Your task to perform on an android device: Is it going to rain tomorrow? Image 0: 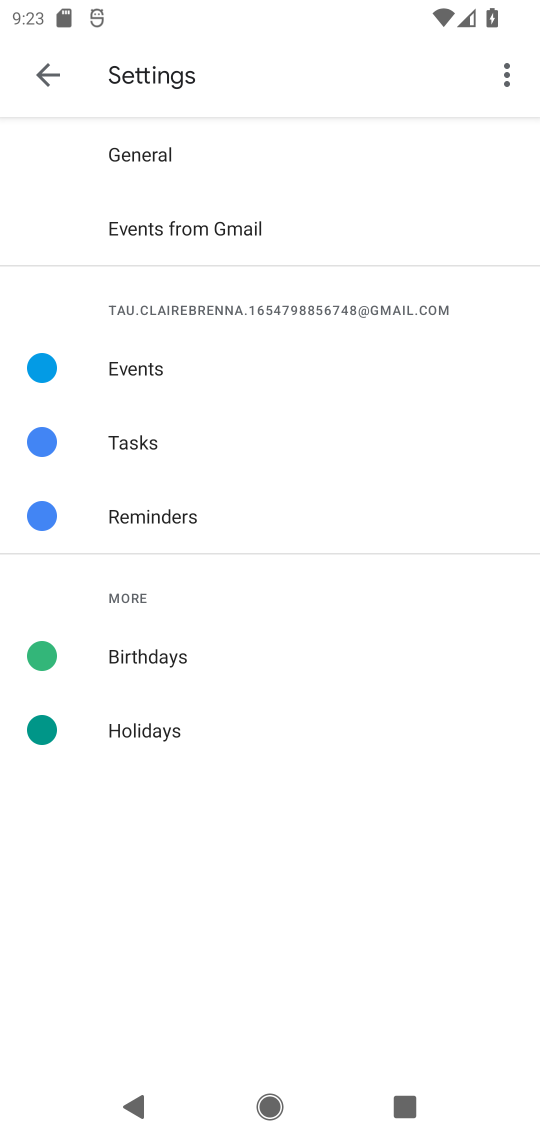
Step 0: press home button
Your task to perform on an android device: Is it going to rain tomorrow? Image 1: 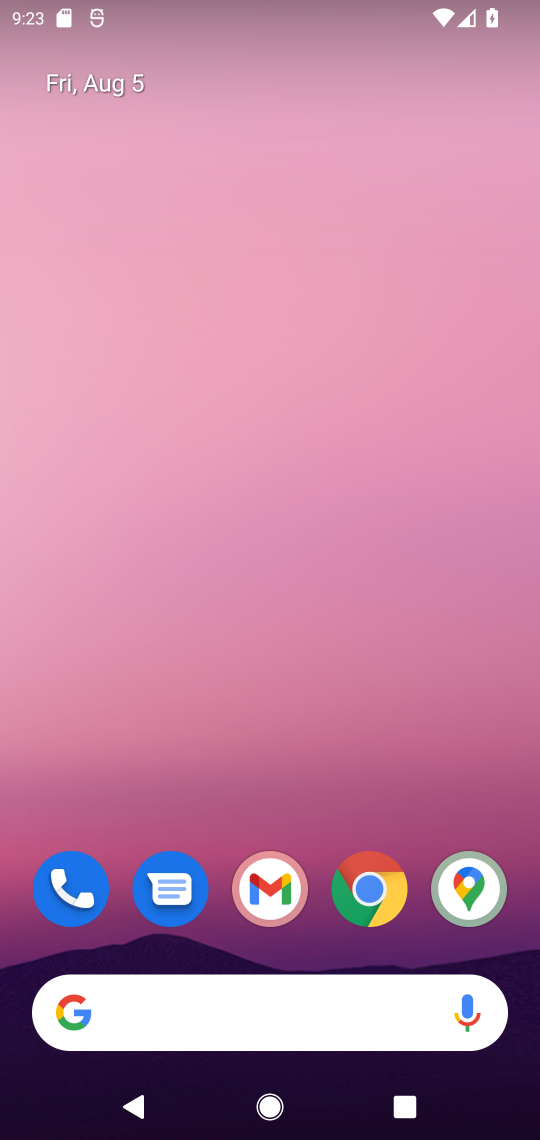
Step 1: click (359, 904)
Your task to perform on an android device: Is it going to rain tomorrow? Image 2: 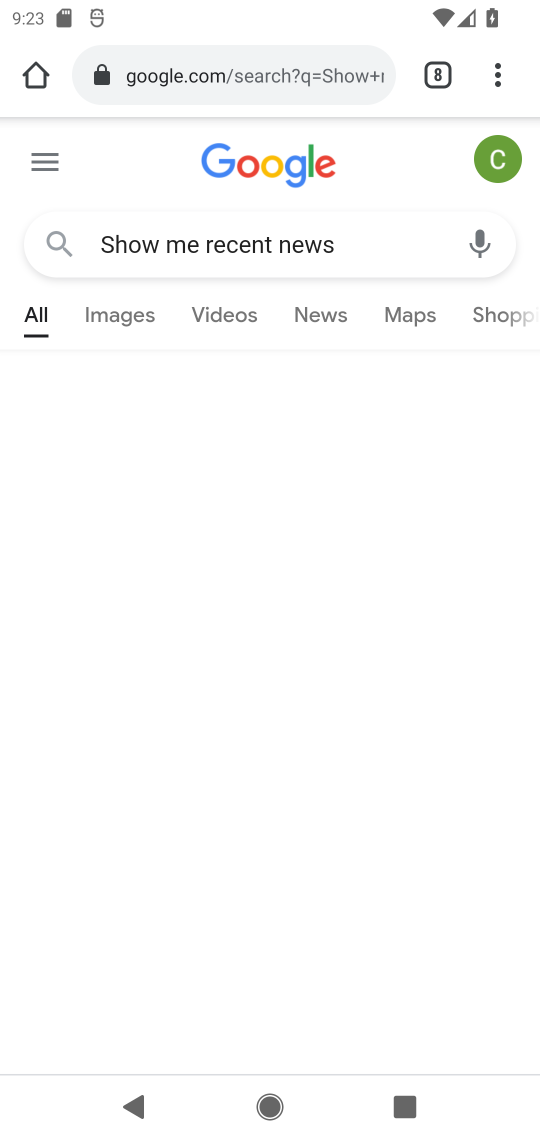
Step 2: click (504, 95)
Your task to perform on an android device: Is it going to rain tomorrow? Image 3: 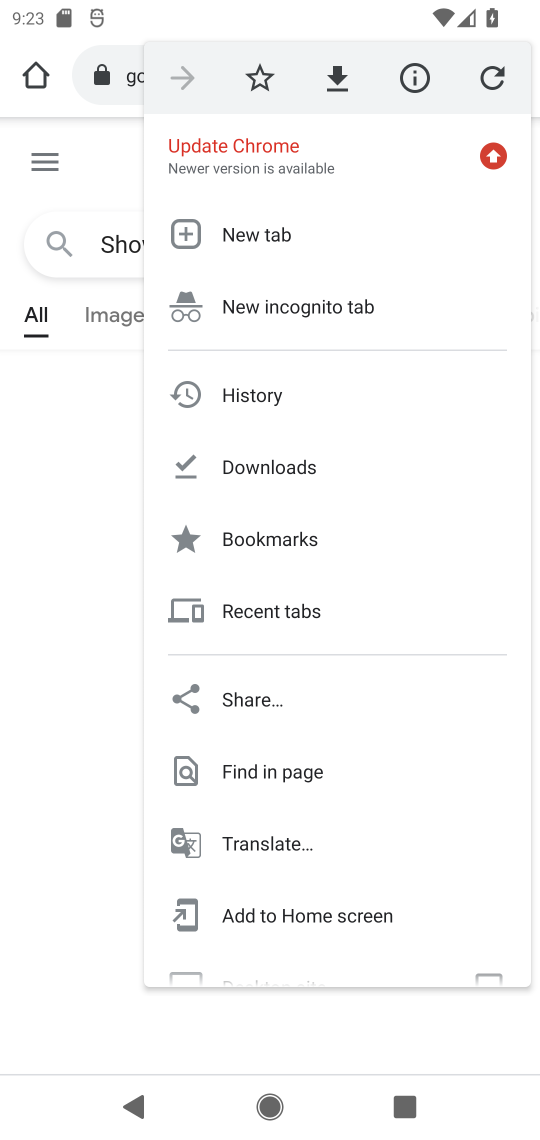
Step 3: click (340, 227)
Your task to perform on an android device: Is it going to rain tomorrow? Image 4: 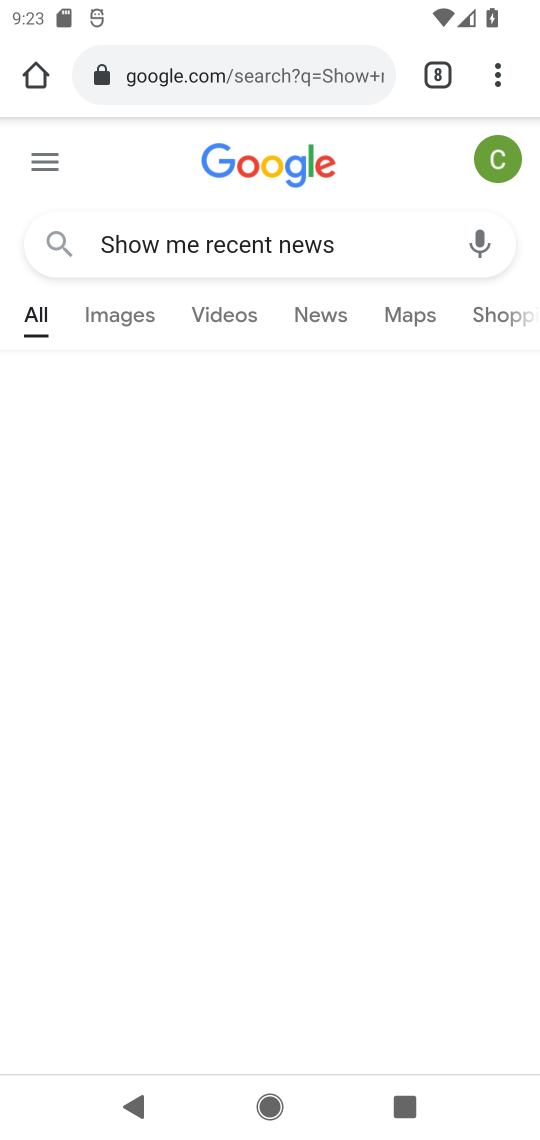
Step 4: drag from (51, 1138) to (438, 1135)
Your task to perform on an android device: Is it going to rain tomorrow? Image 5: 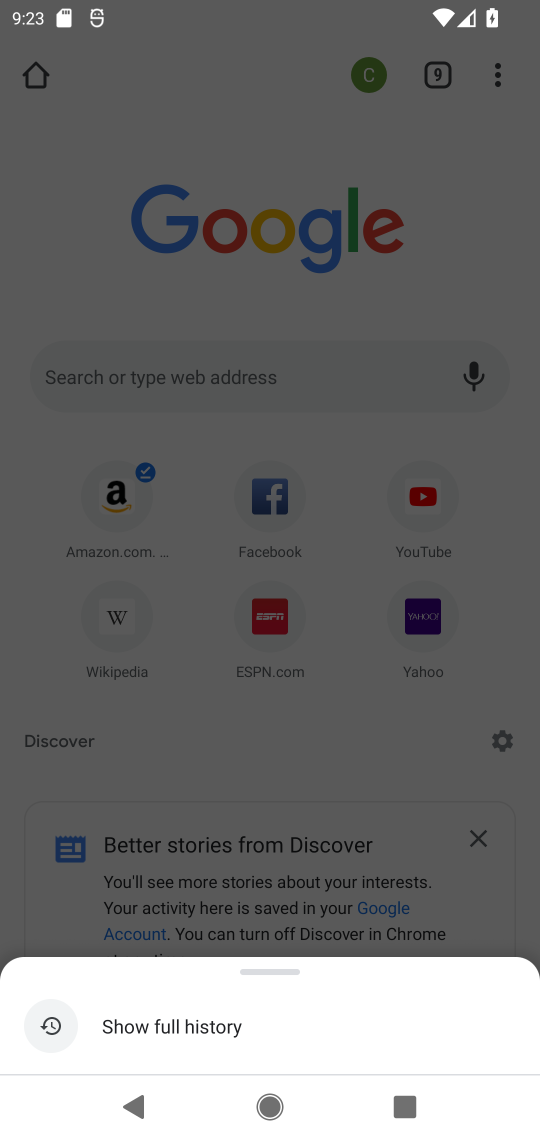
Step 5: click (249, 374)
Your task to perform on an android device: Is it going to rain tomorrow? Image 6: 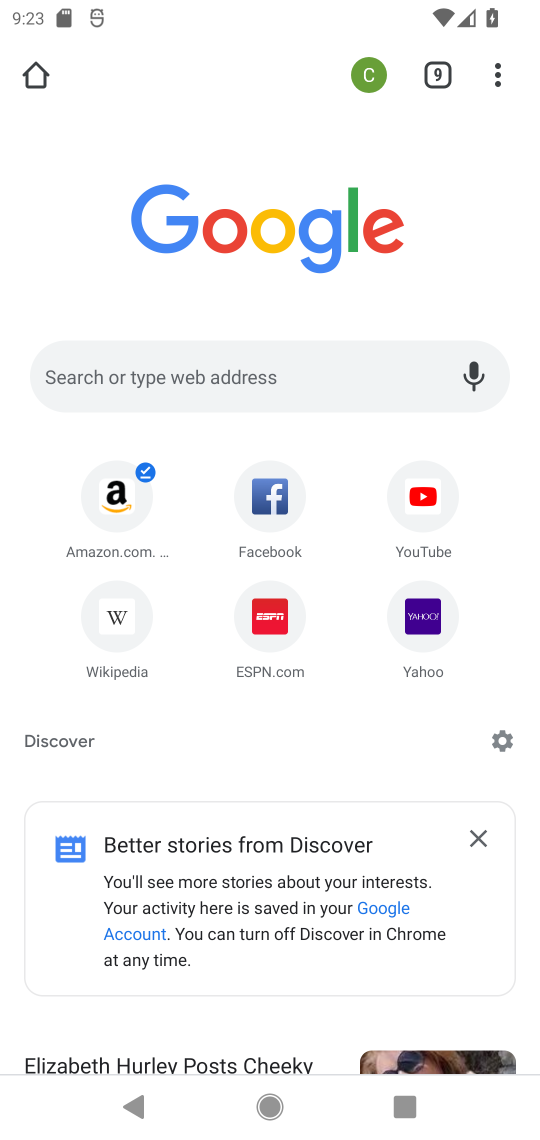
Step 6: click (263, 366)
Your task to perform on an android device: Is it going to rain tomorrow? Image 7: 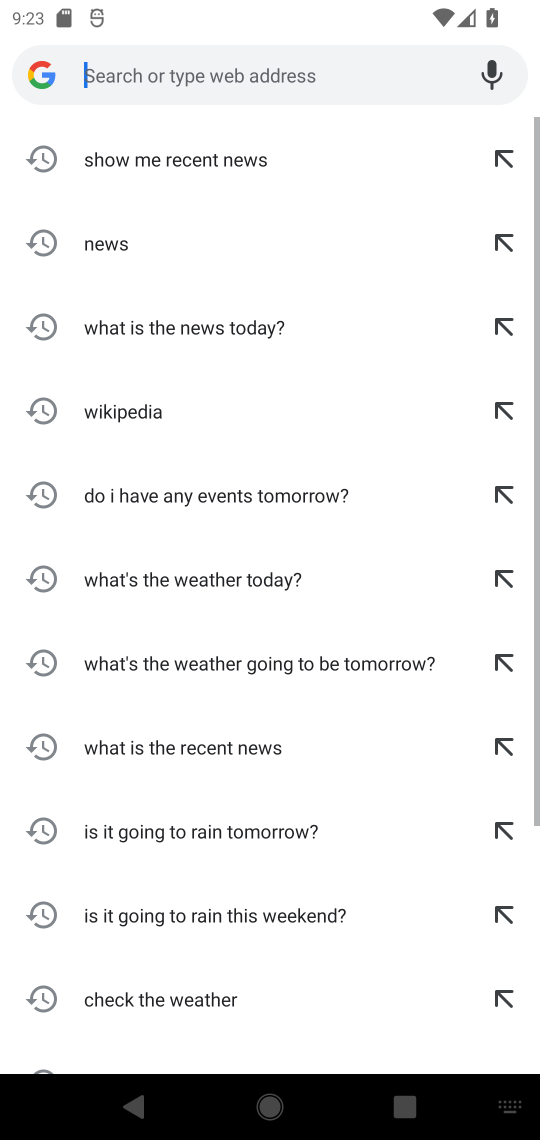
Step 7: type "Is it going to rain tomorrow? "
Your task to perform on an android device: Is it going to rain tomorrow? Image 8: 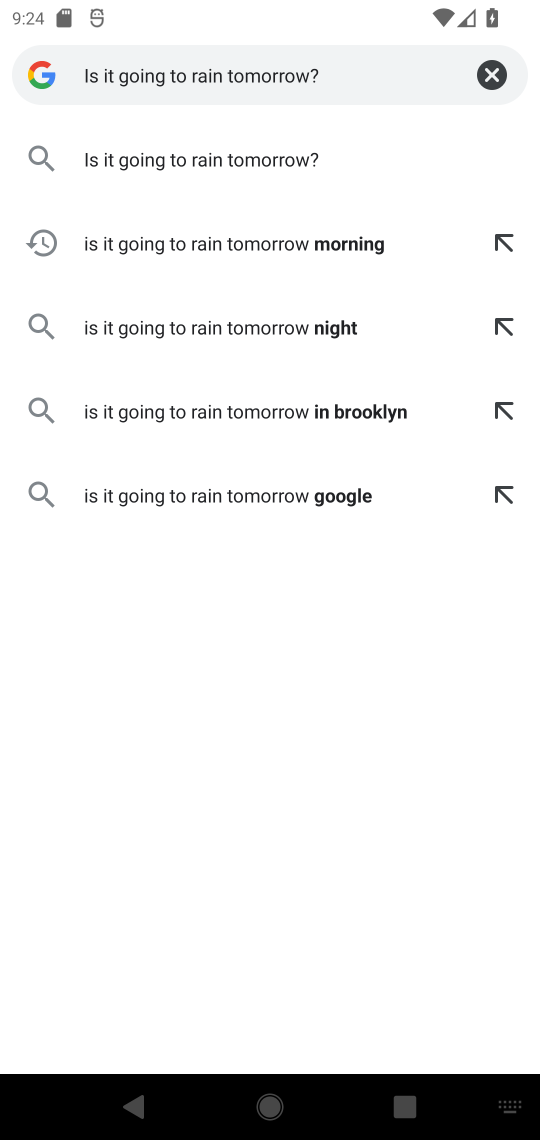
Step 8: click (196, 149)
Your task to perform on an android device: Is it going to rain tomorrow? Image 9: 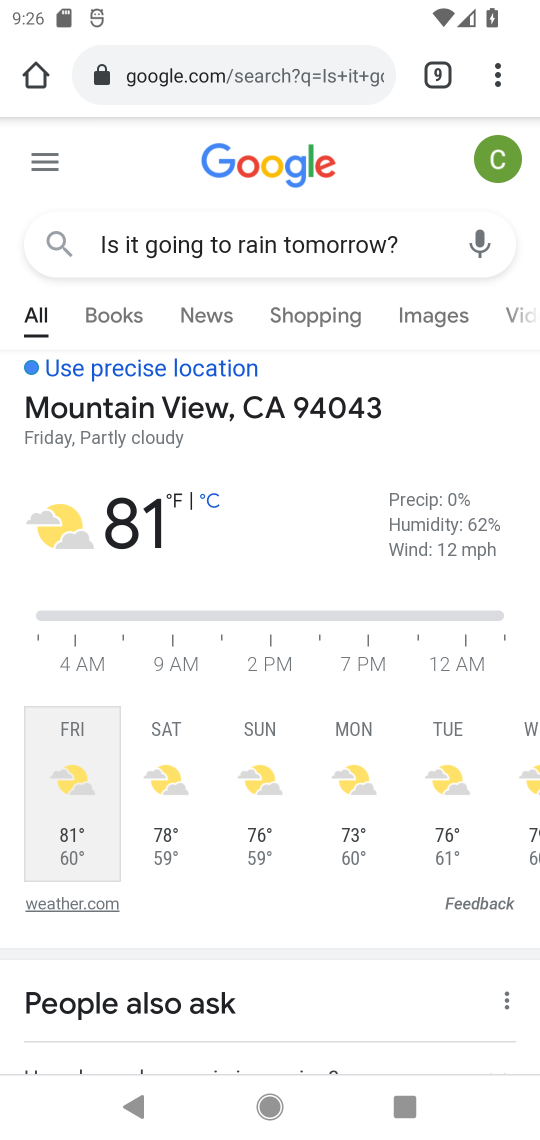
Step 9: task complete